Your task to perform on an android device: Go to Wikipedia Image 0: 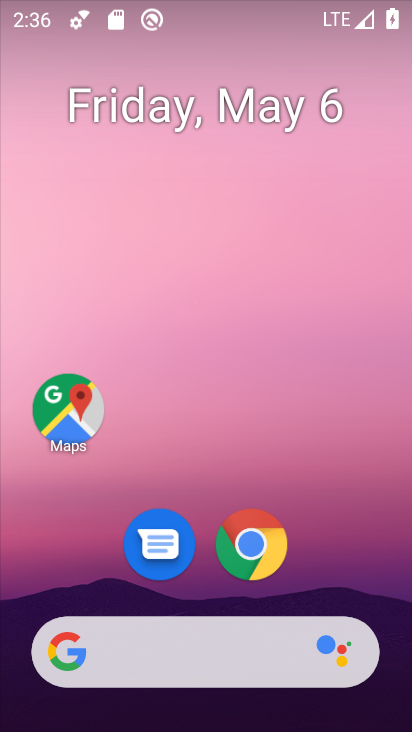
Step 0: click (259, 539)
Your task to perform on an android device: Go to Wikipedia Image 1: 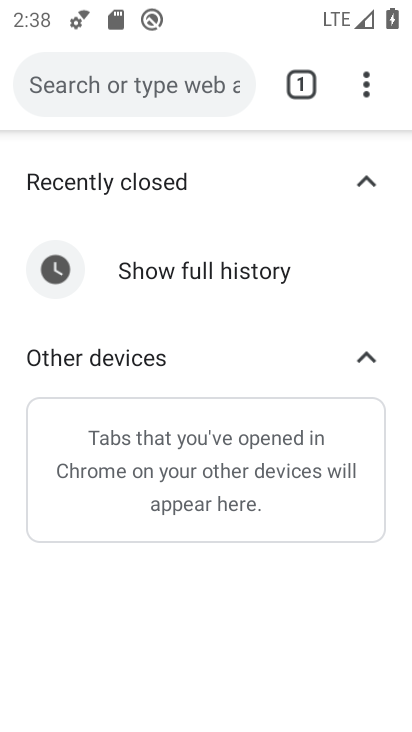
Step 1: press home button
Your task to perform on an android device: Go to Wikipedia Image 2: 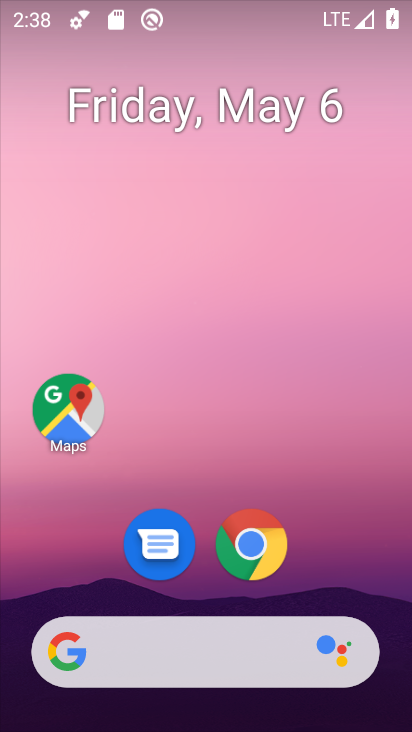
Step 2: click (255, 548)
Your task to perform on an android device: Go to Wikipedia Image 3: 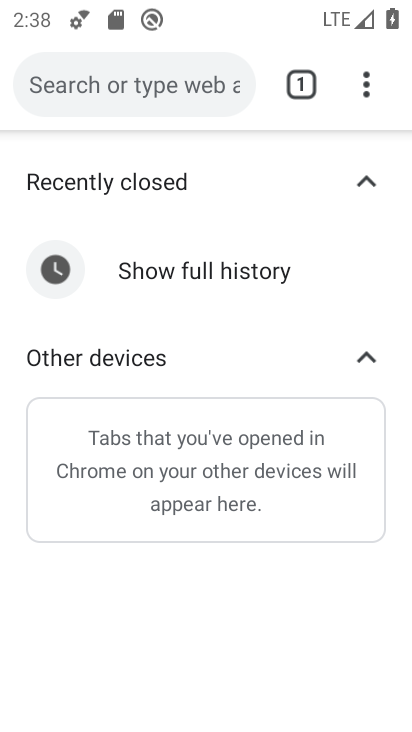
Step 3: click (205, 88)
Your task to perform on an android device: Go to Wikipedia Image 4: 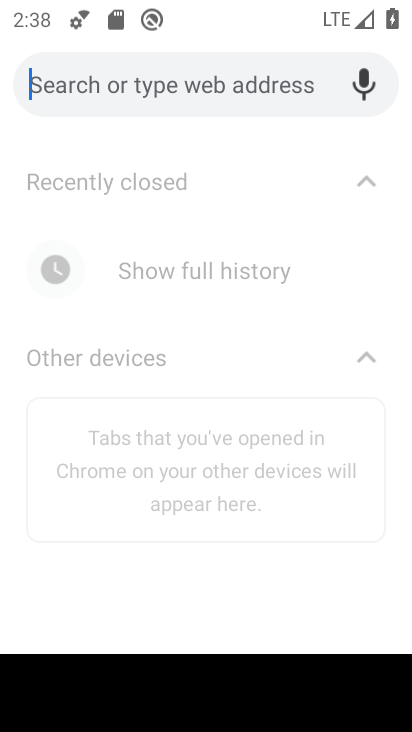
Step 4: type "Wikipedia"
Your task to perform on an android device: Go to Wikipedia Image 5: 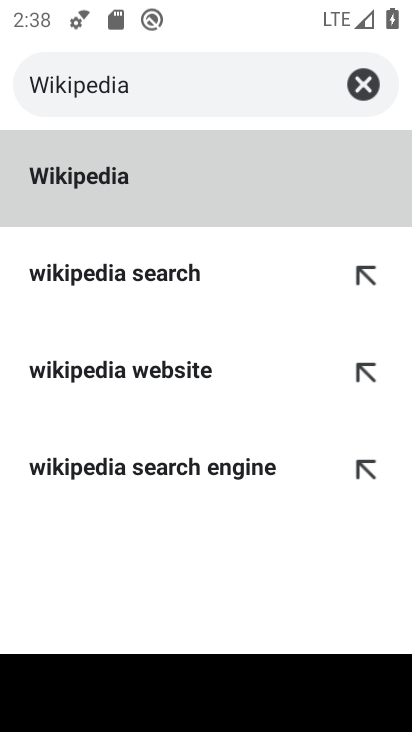
Step 5: click (204, 196)
Your task to perform on an android device: Go to Wikipedia Image 6: 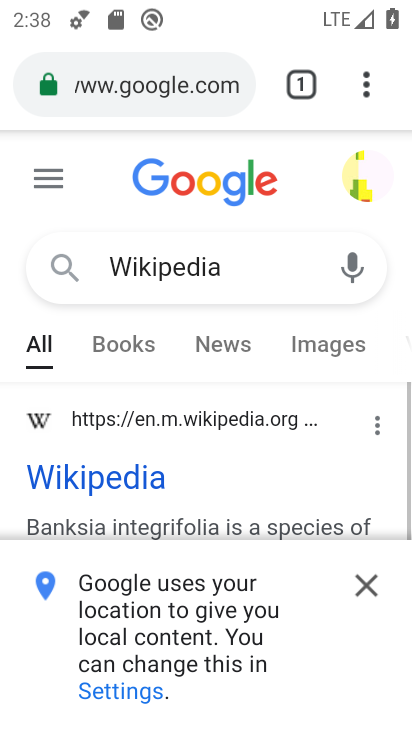
Step 6: task complete